Your task to perform on an android device: turn notification dots off Image 0: 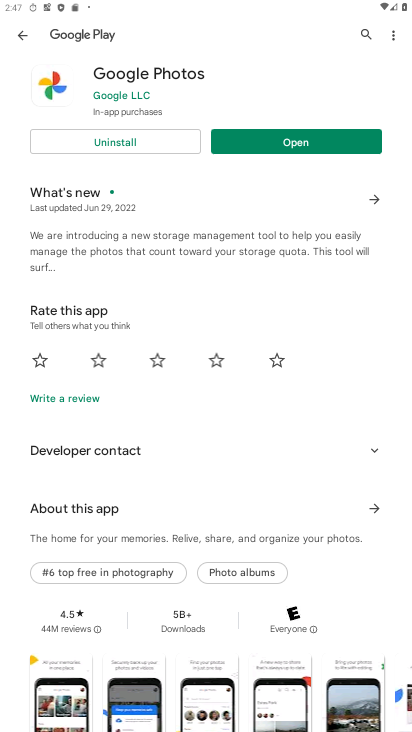
Step 0: press home button
Your task to perform on an android device: turn notification dots off Image 1: 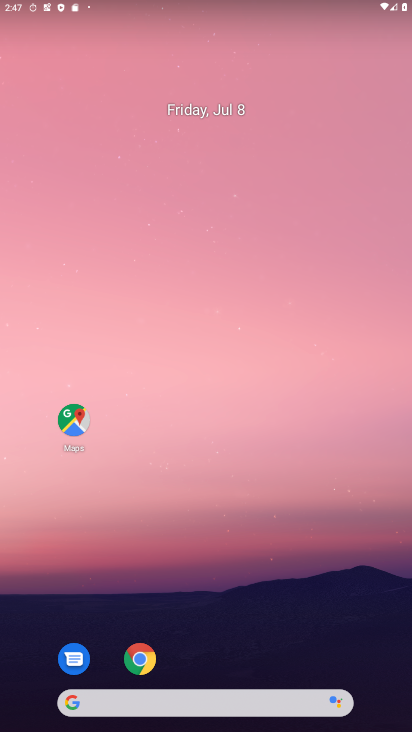
Step 1: drag from (259, 627) to (196, 21)
Your task to perform on an android device: turn notification dots off Image 2: 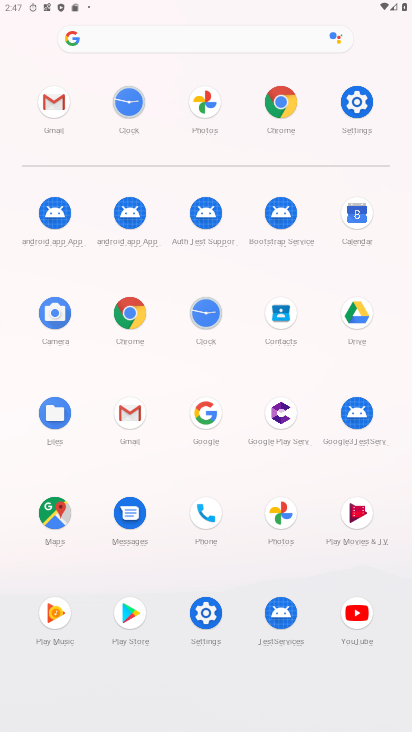
Step 2: click (358, 108)
Your task to perform on an android device: turn notification dots off Image 3: 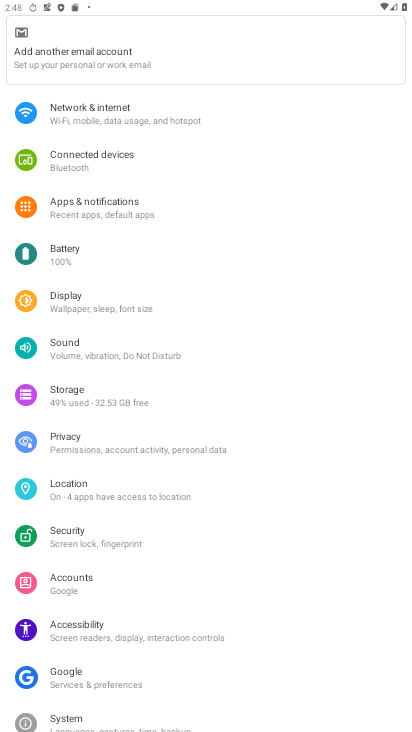
Step 3: click (135, 202)
Your task to perform on an android device: turn notification dots off Image 4: 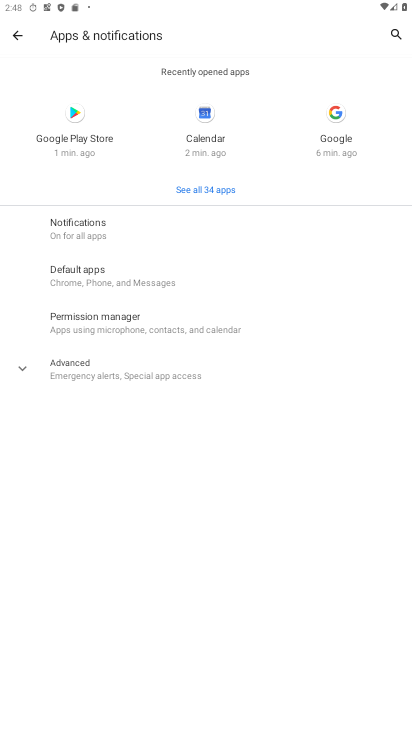
Step 4: click (167, 226)
Your task to perform on an android device: turn notification dots off Image 5: 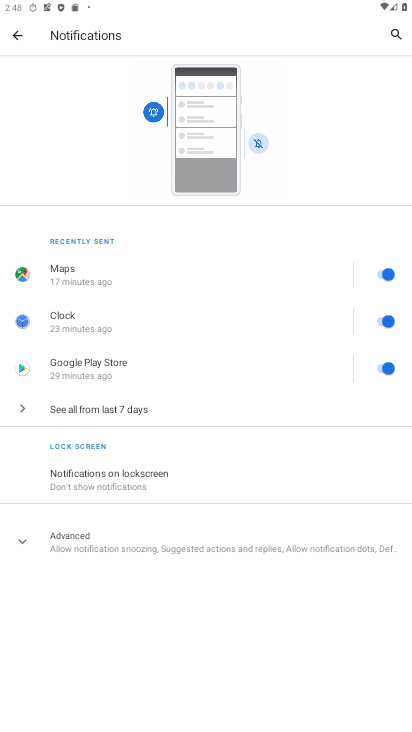
Step 5: click (93, 557)
Your task to perform on an android device: turn notification dots off Image 6: 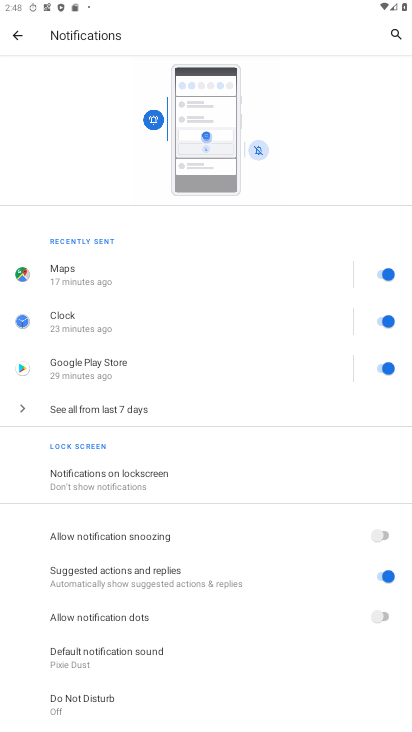
Step 6: task complete